Your task to perform on an android device: Open Chrome and go to settings Image 0: 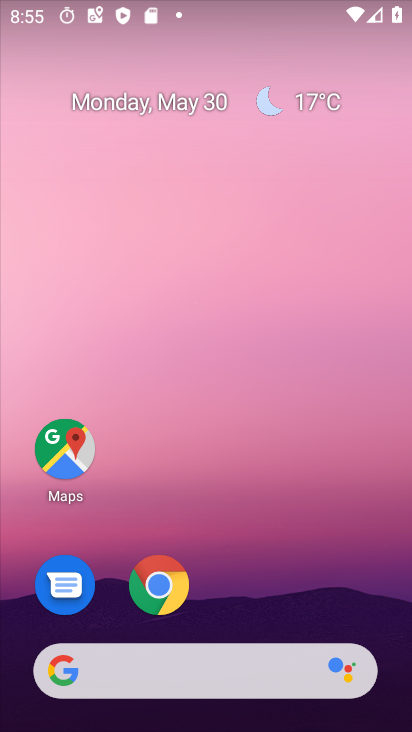
Step 0: drag from (263, 606) to (263, 120)
Your task to perform on an android device: Open Chrome and go to settings Image 1: 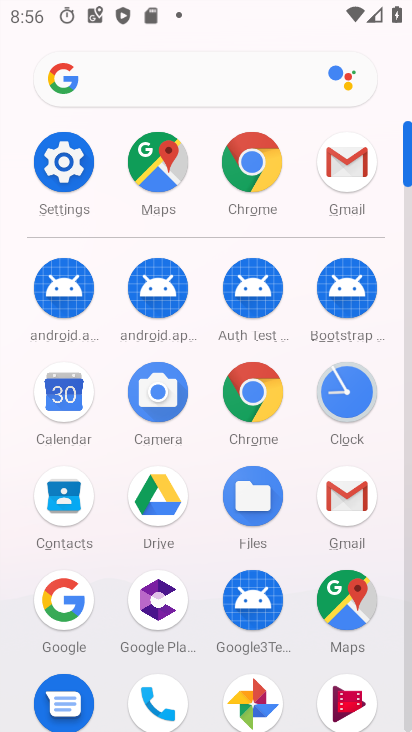
Step 1: click (246, 153)
Your task to perform on an android device: Open Chrome and go to settings Image 2: 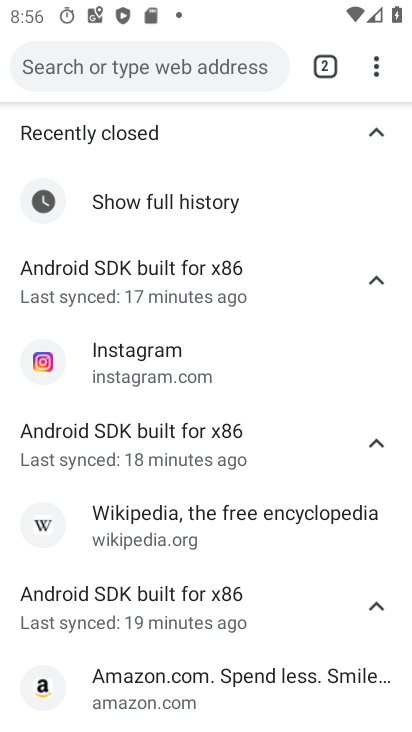
Step 2: task complete